Your task to perform on an android device: move a message to another label in the gmail app Image 0: 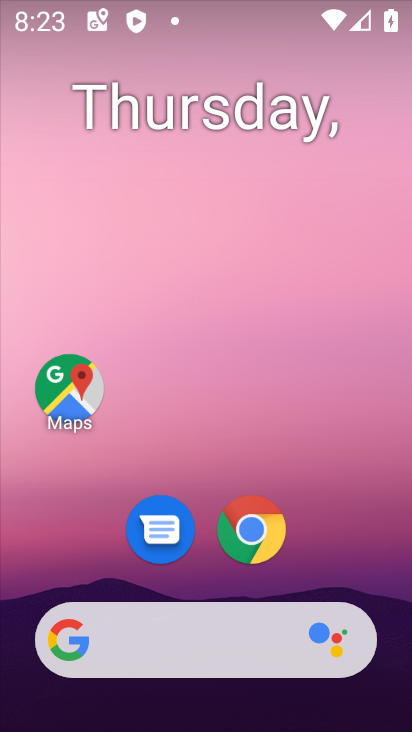
Step 0: drag from (222, 724) to (215, 149)
Your task to perform on an android device: move a message to another label in the gmail app Image 1: 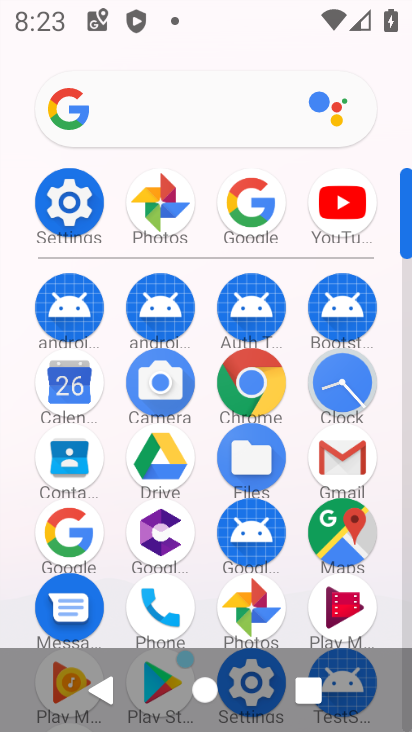
Step 1: click (349, 454)
Your task to perform on an android device: move a message to another label in the gmail app Image 2: 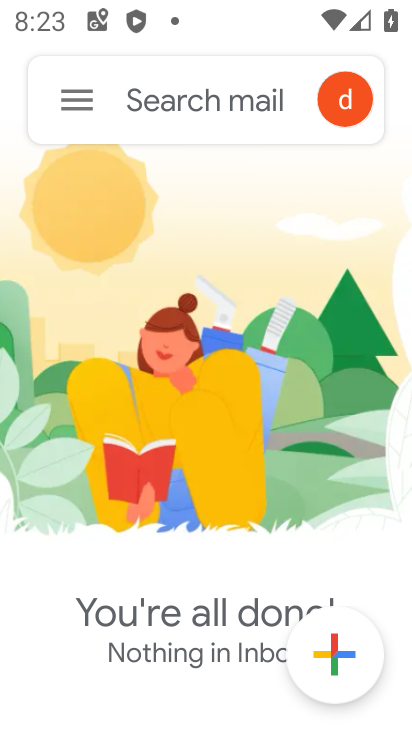
Step 2: task complete